Your task to perform on an android device: Open Yahoo.com Image 0: 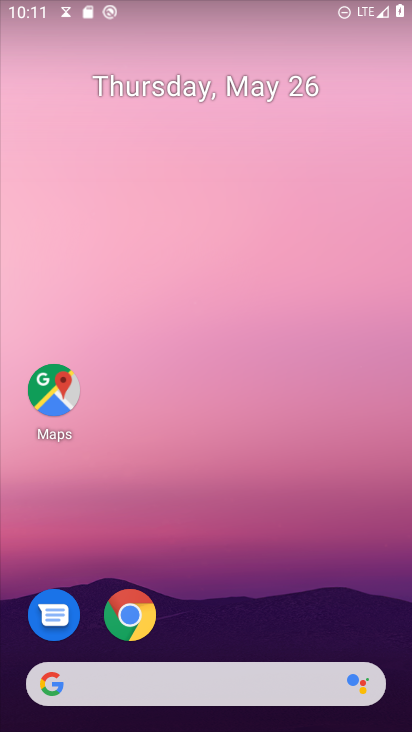
Step 0: click (126, 609)
Your task to perform on an android device: Open Yahoo.com Image 1: 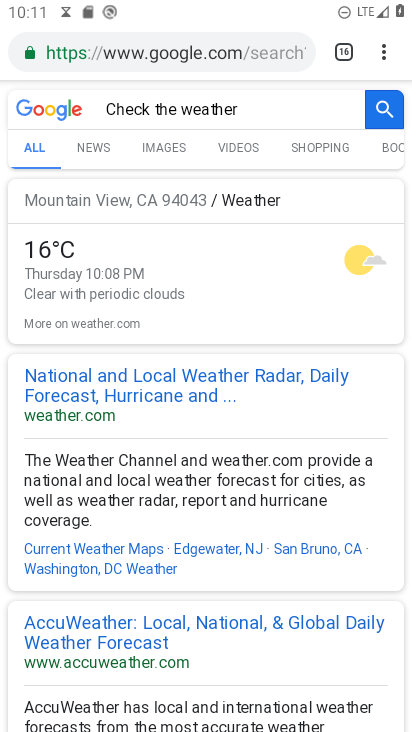
Step 1: click (376, 54)
Your task to perform on an android device: Open Yahoo.com Image 2: 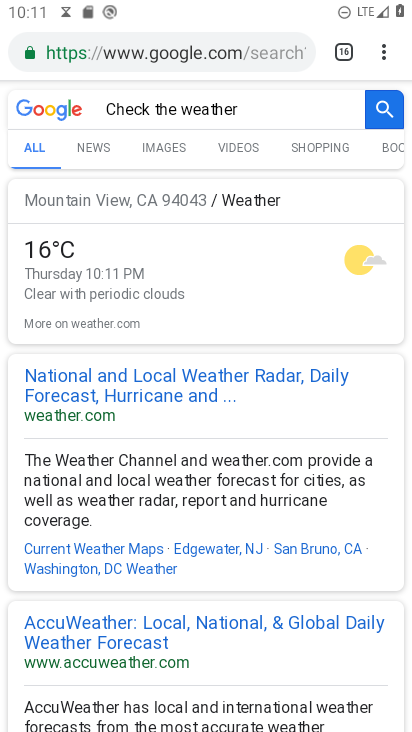
Step 2: click (378, 54)
Your task to perform on an android device: Open Yahoo.com Image 3: 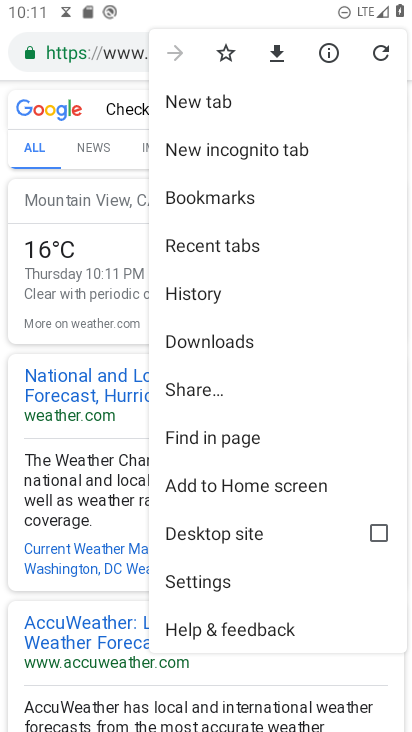
Step 3: click (210, 106)
Your task to perform on an android device: Open Yahoo.com Image 4: 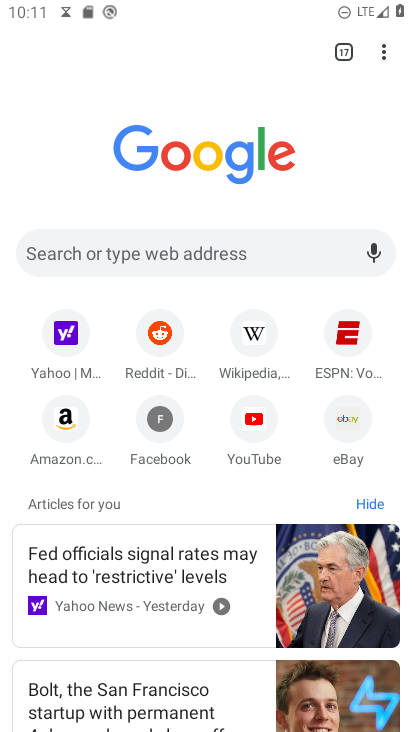
Step 4: click (45, 331)
Your task to perform on an android device: Open Yahoo.com Image 5: 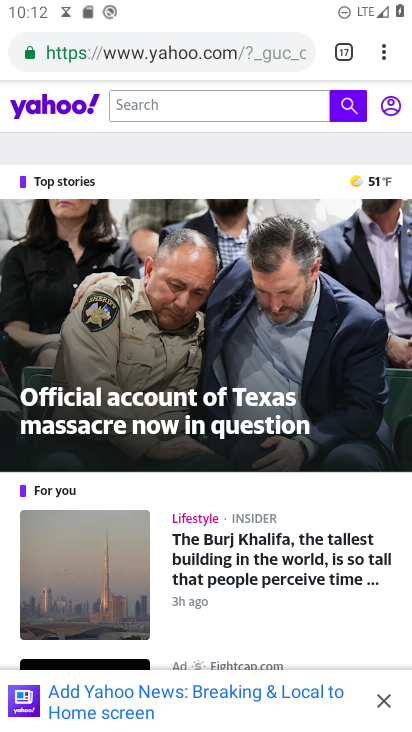
Step 5: task complete